Your task to perform on an android device: install app "Airtel Thanks" Image 0: 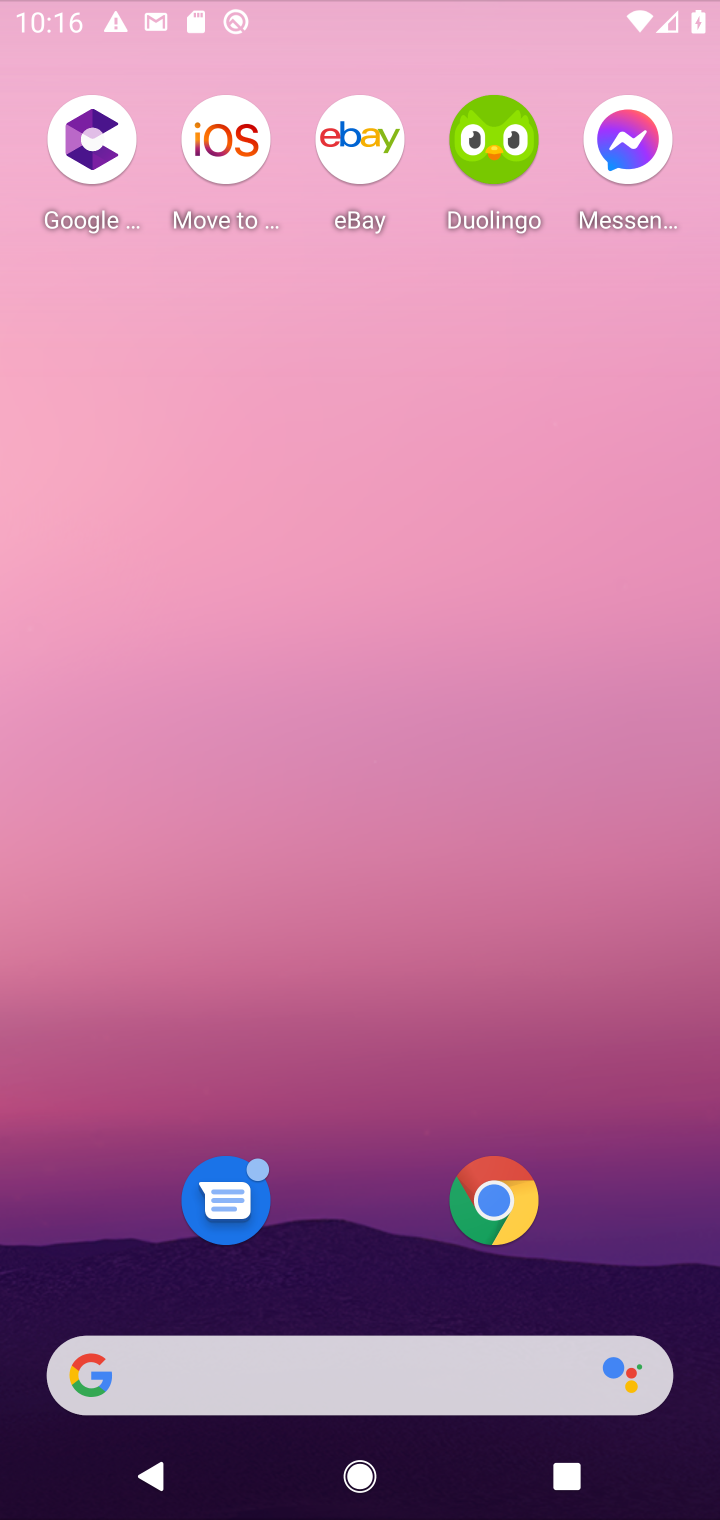
Step 0: press home button
Your task to perform on an android device: install app "Airtel Thanks" Image 1: 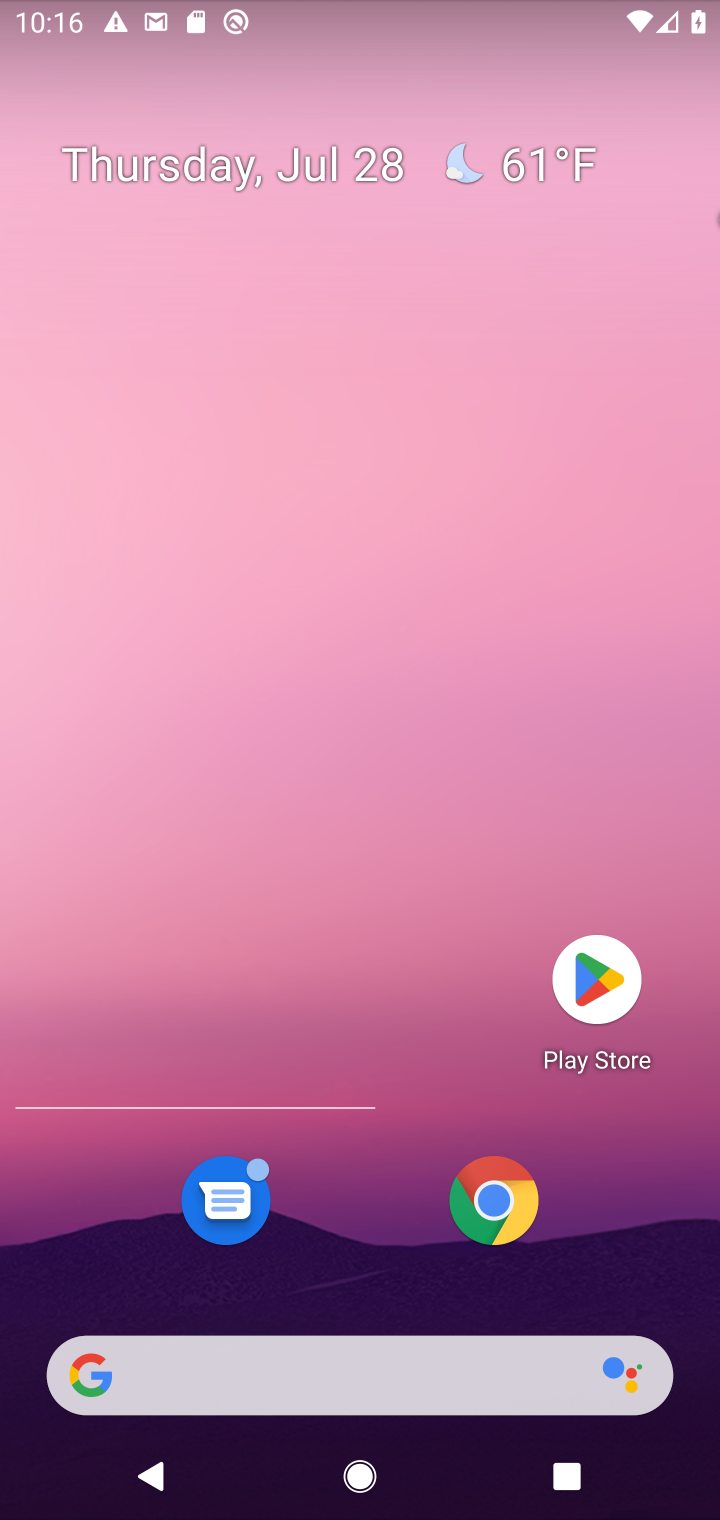
Step 1: press home button
Your task to perform on an android device: install app "Airtel Thanks" Image 2: 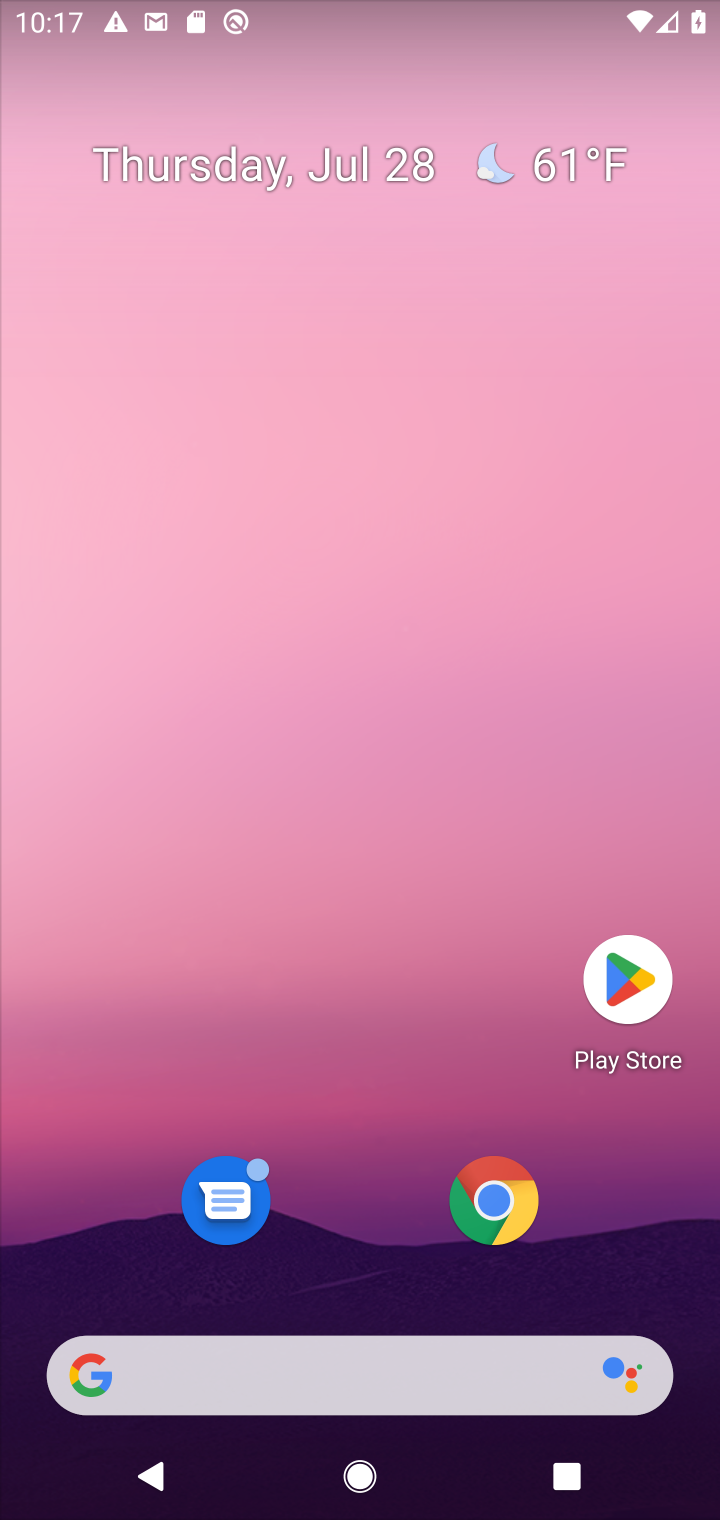
Step 2: click (635, 971)
Your task to perform on an android device: install app "Airtel Thanks" Image 3: 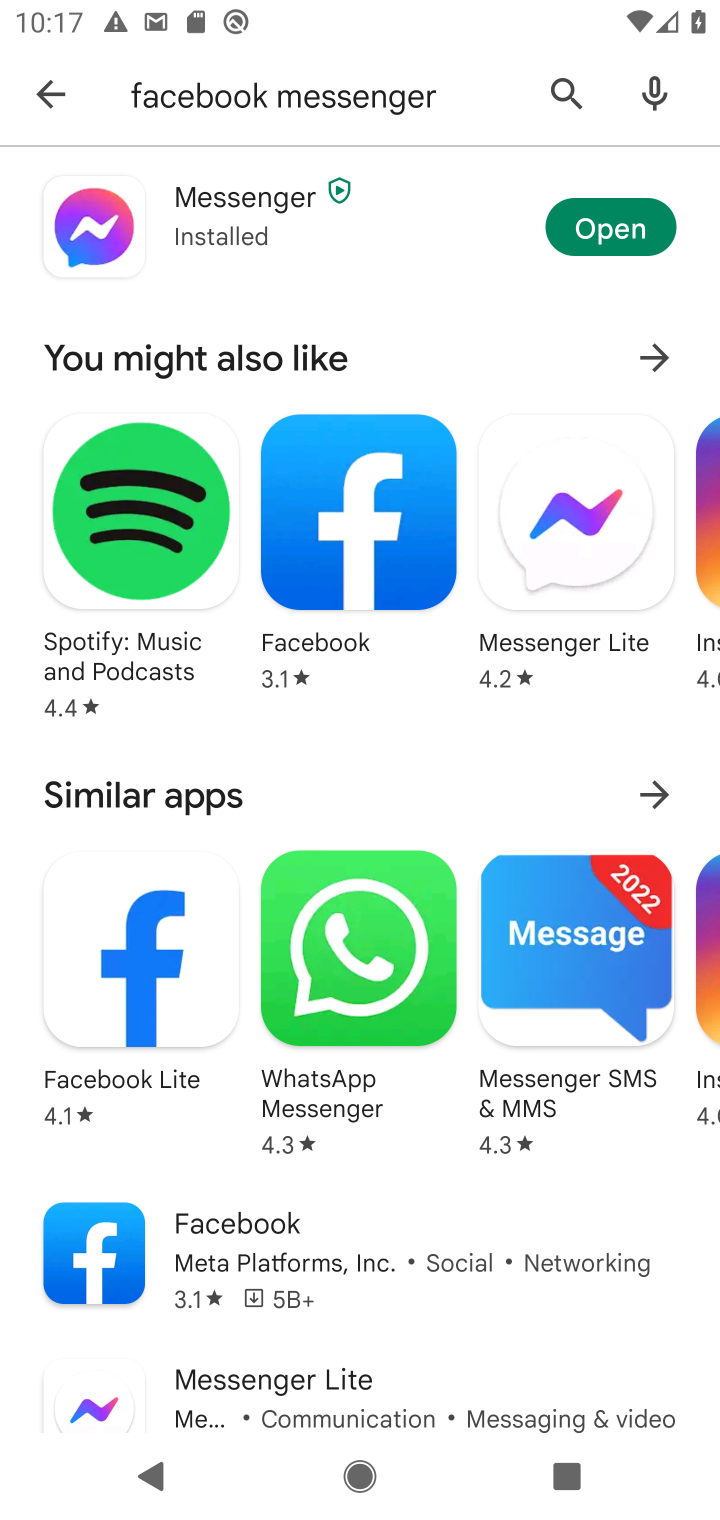
Step 3: click (552, 86)
Your task to perform on an android device: install app "Airtel Thanks" Image 4: 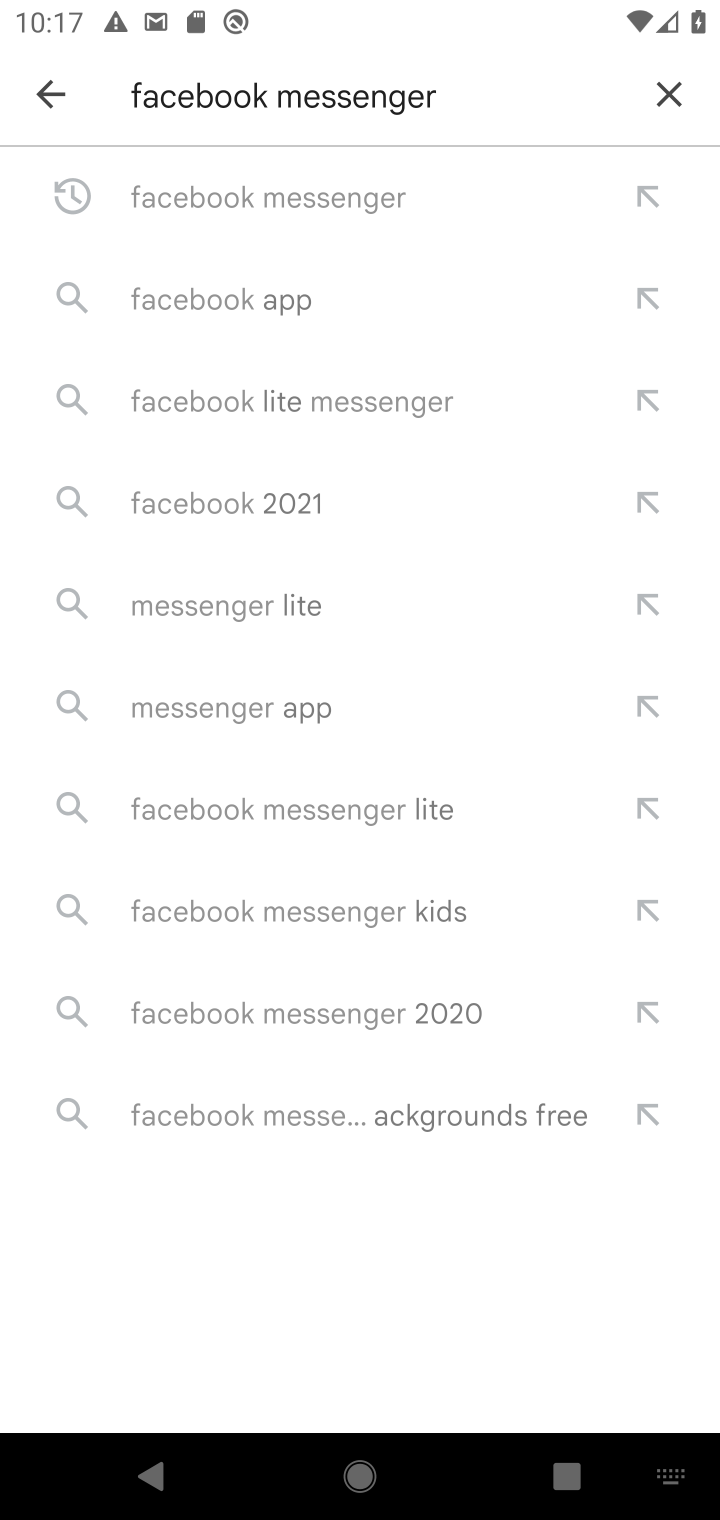
Step 4: click (663, 83)
Your task to perform on an android device: install app "Airtel Thanks" Image 5: 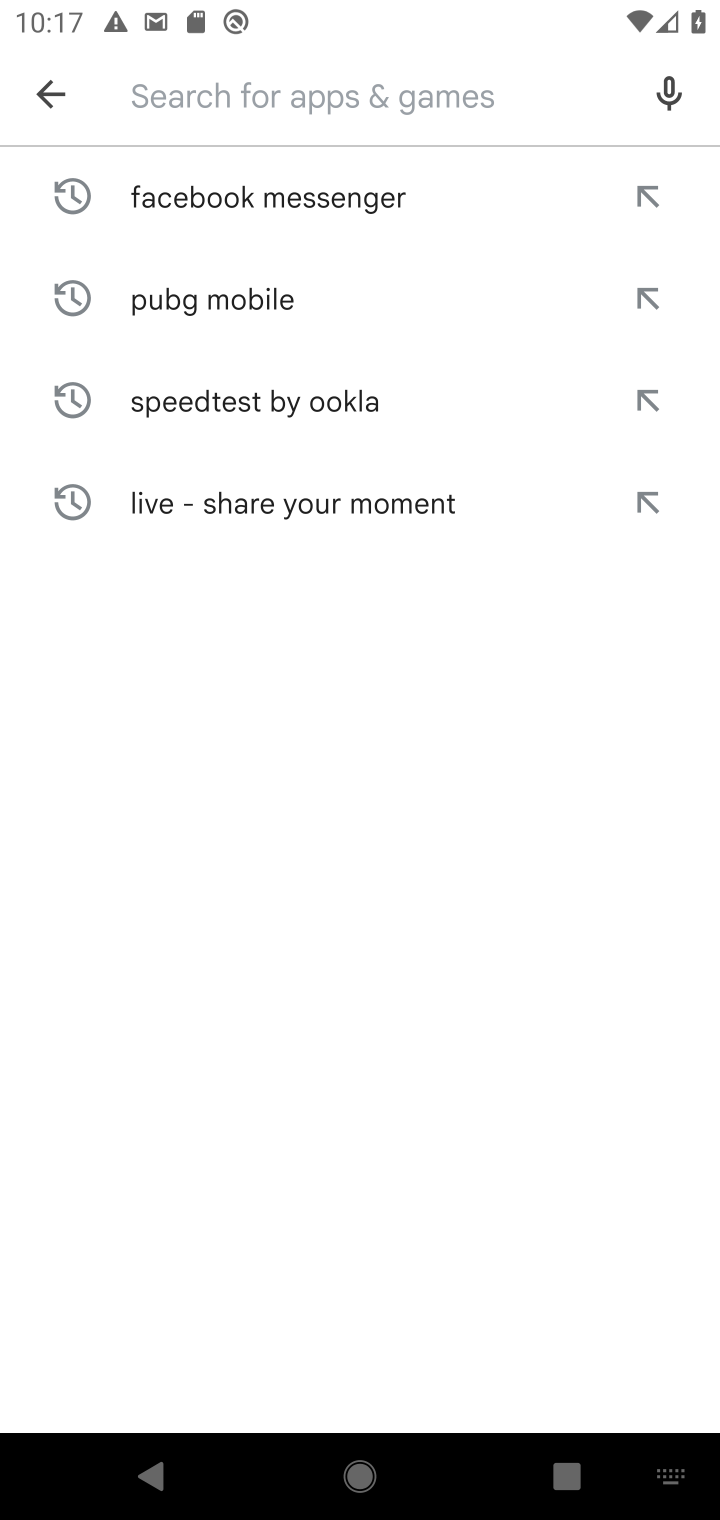
Step 5: type "Airtel Thanks"
Your task to perform on an android device: install app "Airtel Thanks" Image 6: 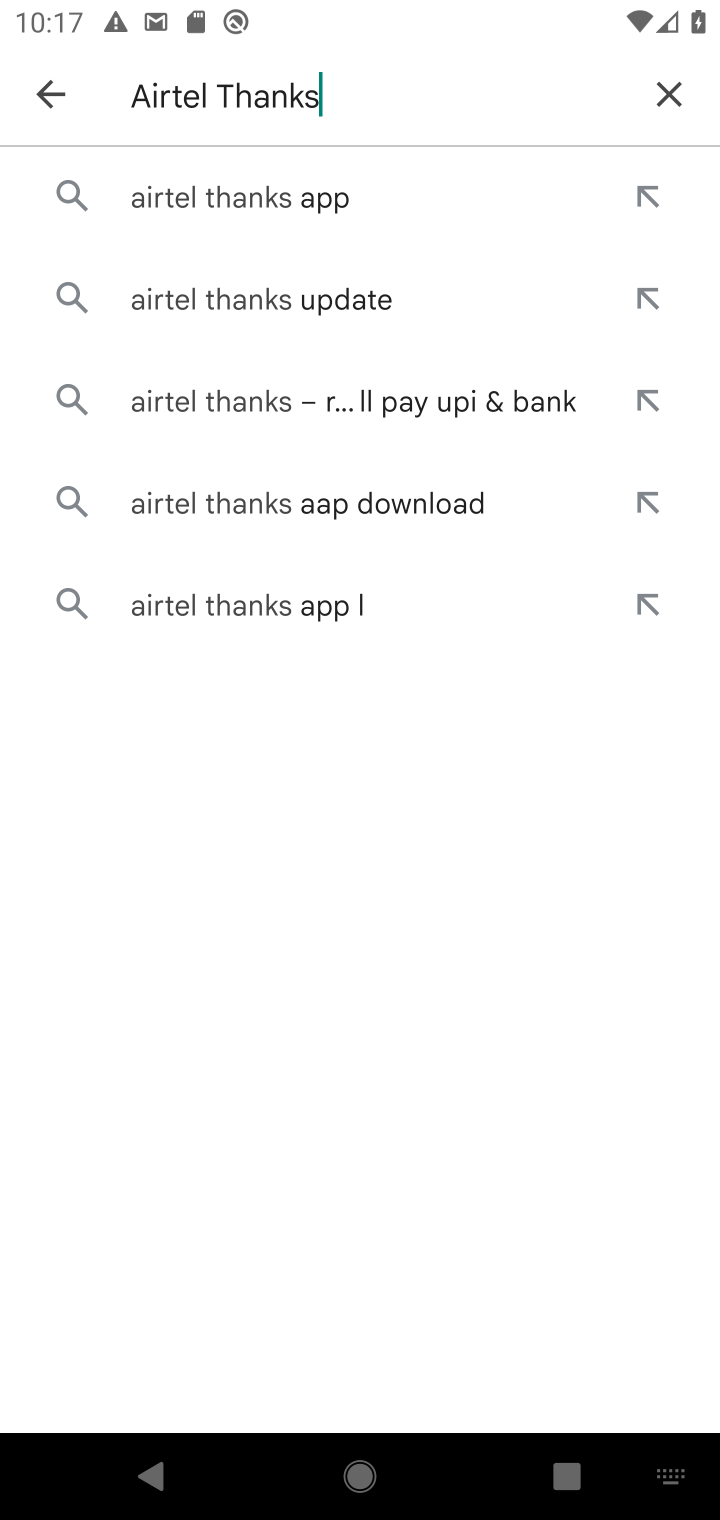
Step 6: click (315, 196)
Your task to perform on an android device: install app "Airtel Thanks" Image 7: 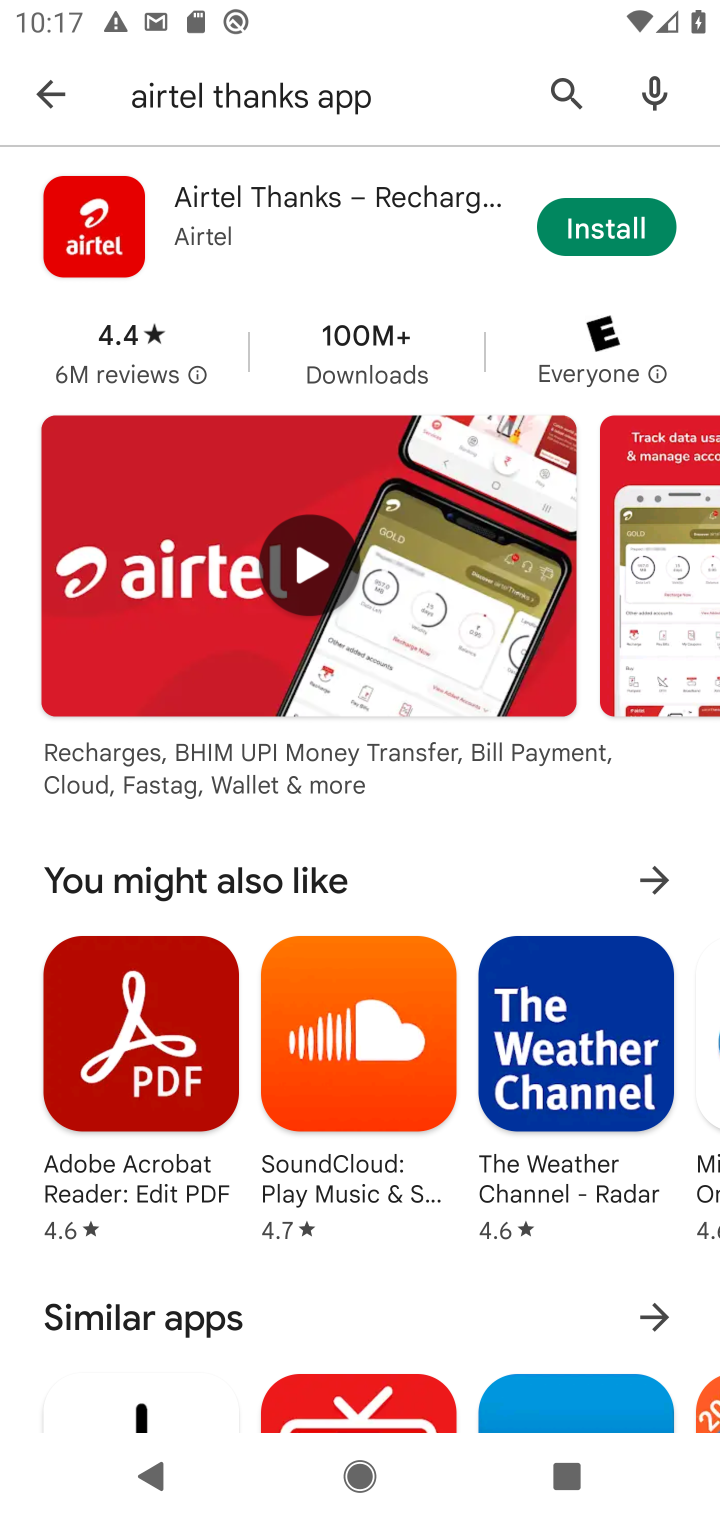
Step 7: click (599, 221)
Your task to perform on an android device: install app "Airtel Thanks" Image 8: 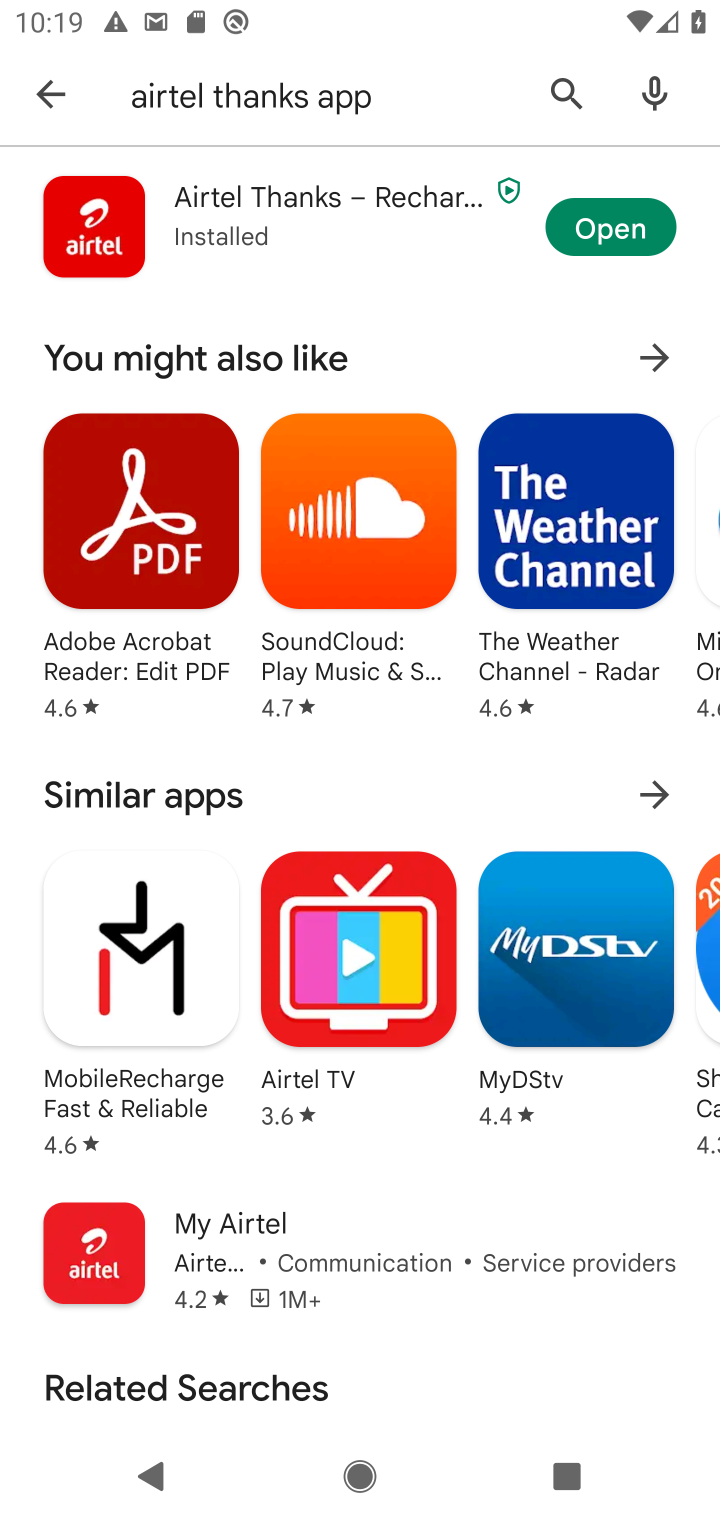
Step 8: task complete